Your task to perform on an android device: Open privacy settings Image 0: 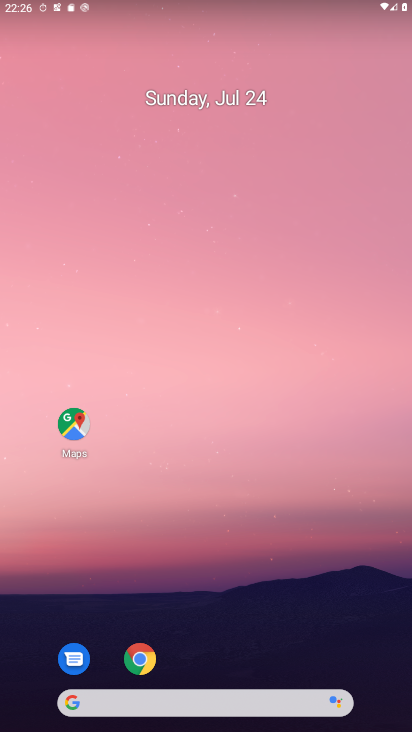
Step 0: drag from (225, 712) to (178, 113)
Your task to perform on an android device: Open privacy settings Image 1: 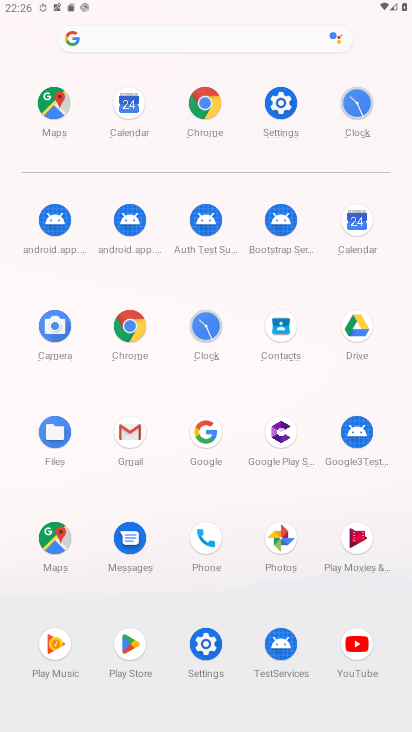
Step 1: click (280, 105)
Your task to perform on an android device: Open privacy settings Image 2: 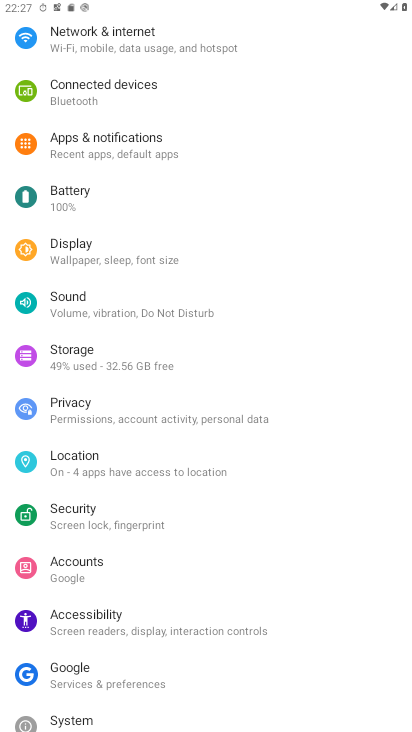
Step 2: click (69, 411)
Your task to perform on an android device: Open privacy settings Image 3: 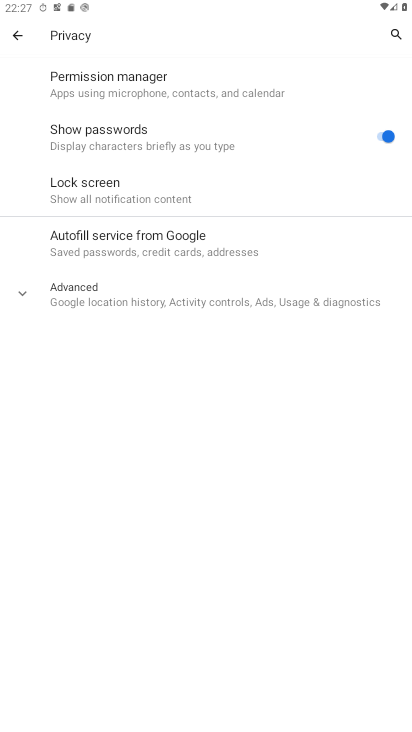
Step 3: task complete